Your task to perform on an android device: Open Wikipedia Image 0: 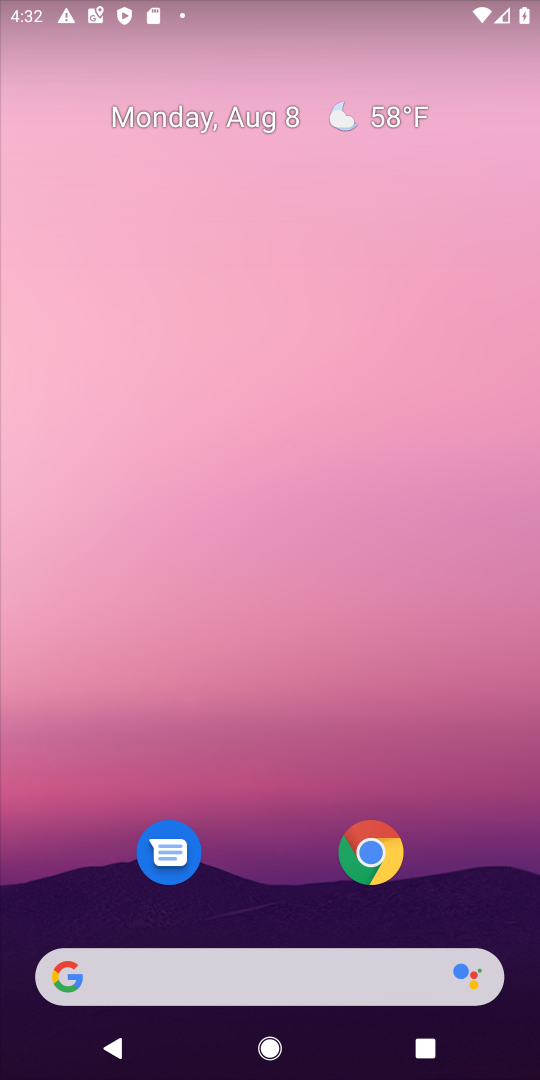
Step 0: drag from (283, 819) to (443, 57)
Your task to perform on an android device: Open Wikipedia Image 1: 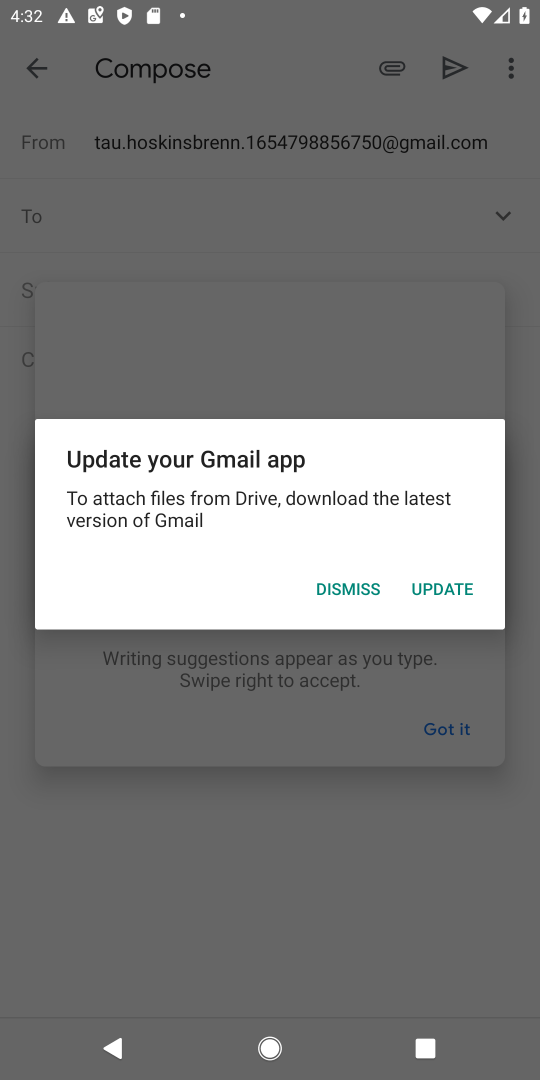
Step 1: press home button
Your task to perform on an android device: Open Wikipedia Image 2: 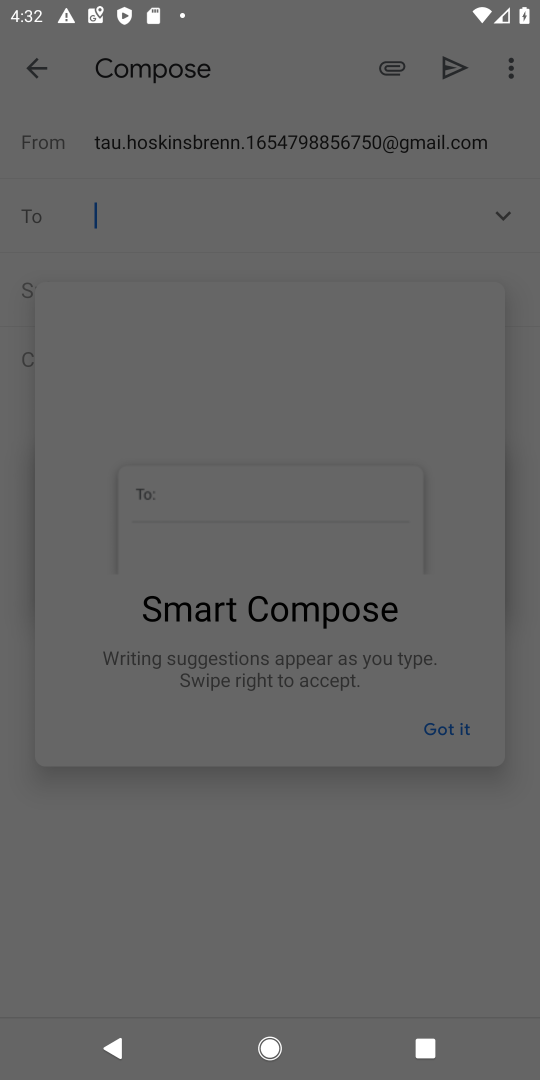
Step 2: press home button
Your task to perform on an android device: Open Wikipedia Image 3: 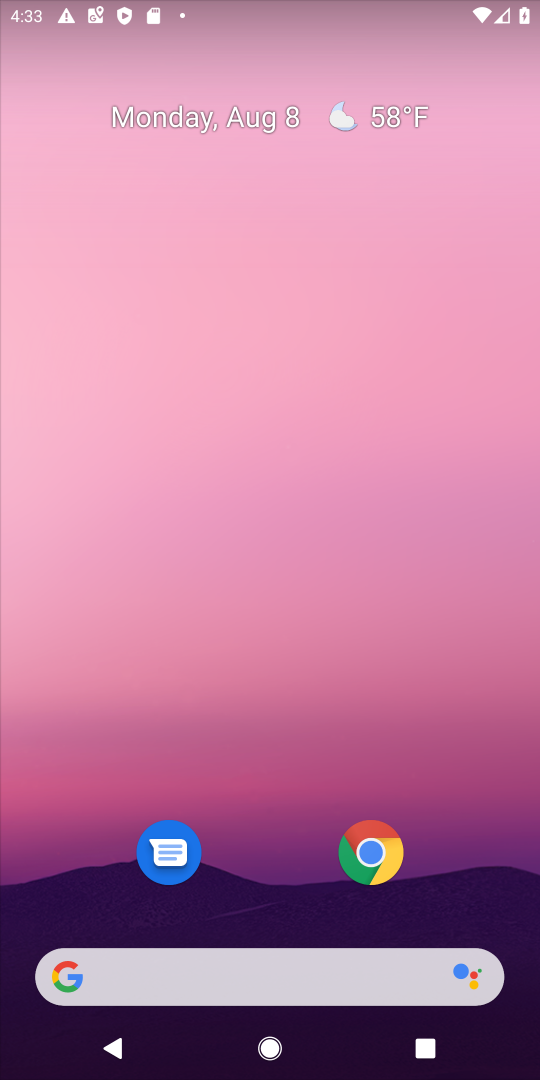
Step 3: drag from (251, 887) to (423, 87)
Your task to perform on an android device: Open Wikipedia Image 4: 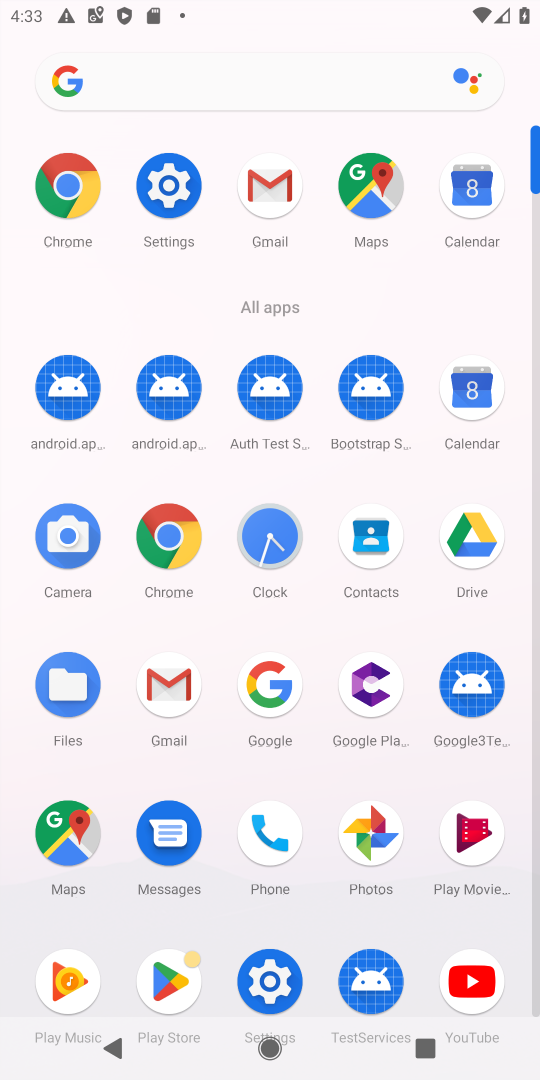
Step 4: click (167, 534)
Your task to perform on an android device: Open Wikipedia Image 5: 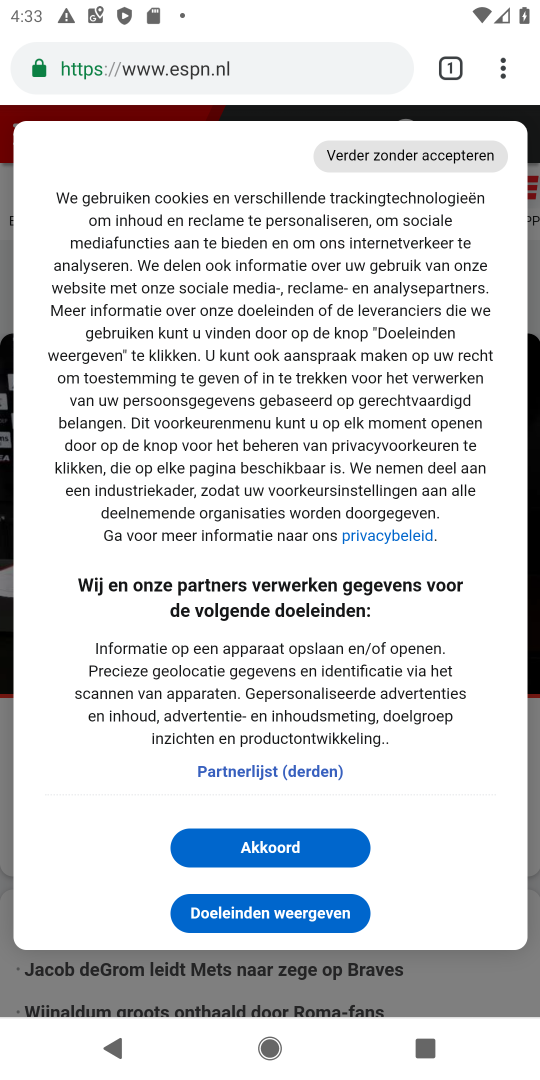
Step 5: click (320, 69)
Your task to perform on an android device: Open Wikipedia Image 6: 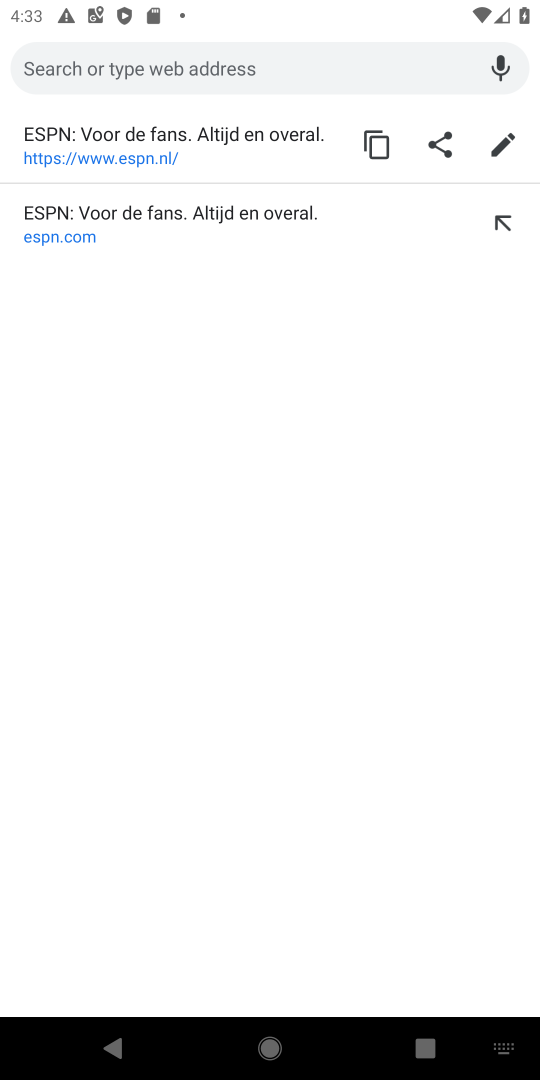
Step 6: type "wikipedia"
Your task to perform on an android device: Open Wikipedia Image 7: 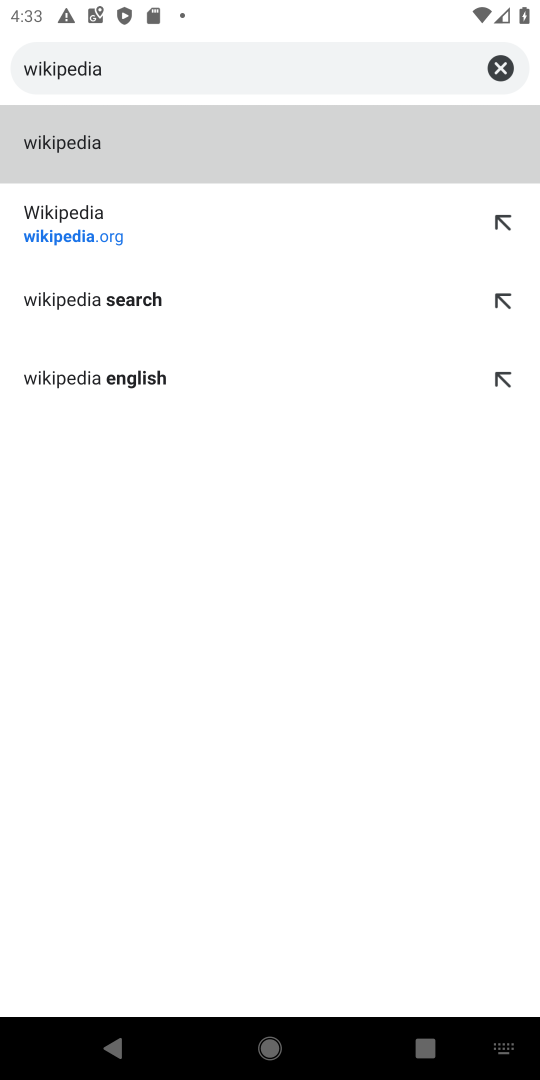
Step 7: click (161, 126)
Your task to perform on an android device: Open Wikipedia Image 8: 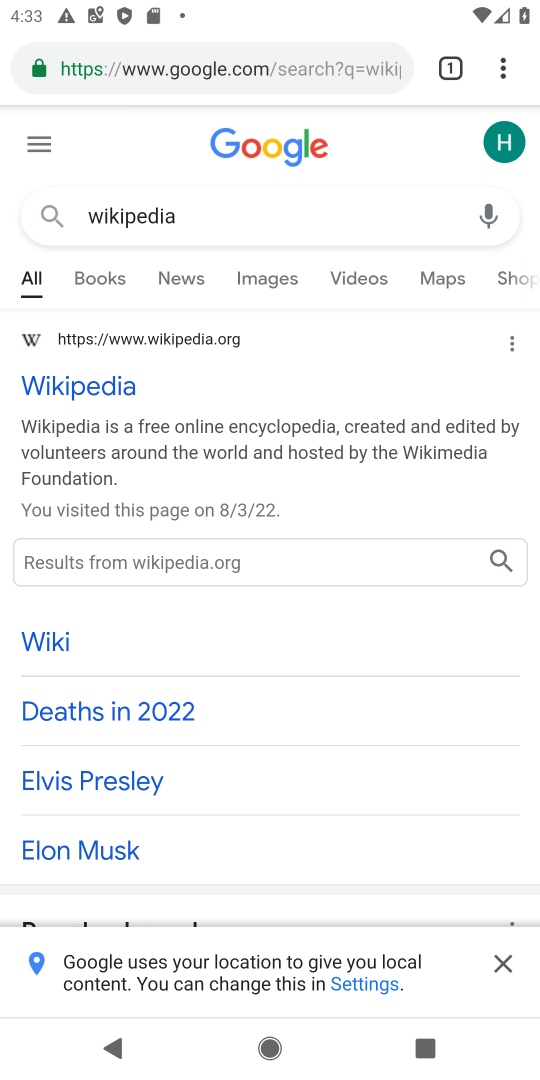
Step 8: click (115, 384)
Your task to perform on an android device: Open Wikipedia Image 9: 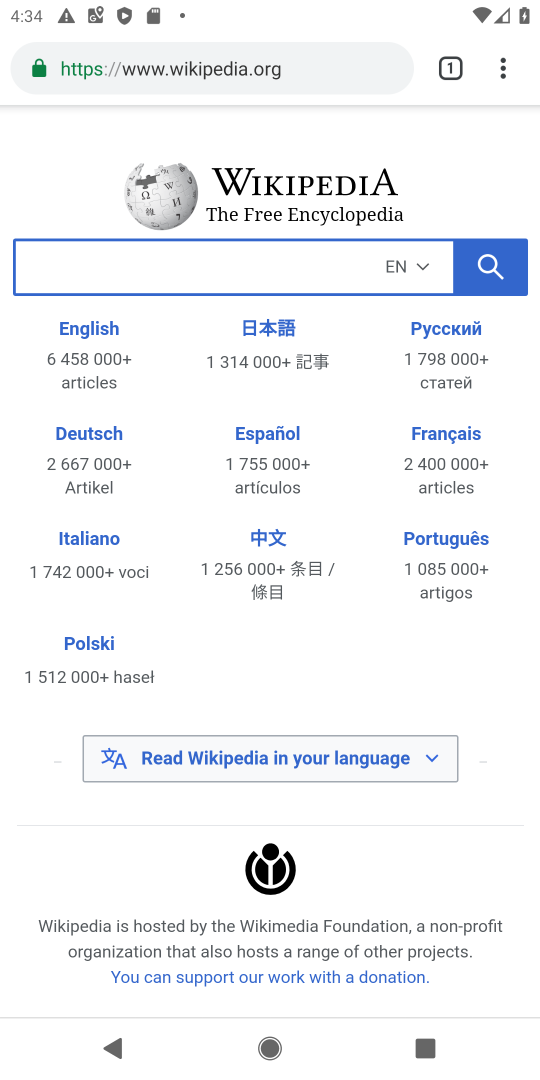
Step 9: task complete